Your task to perform on an android device: change the clock display to show seconds Image 0: 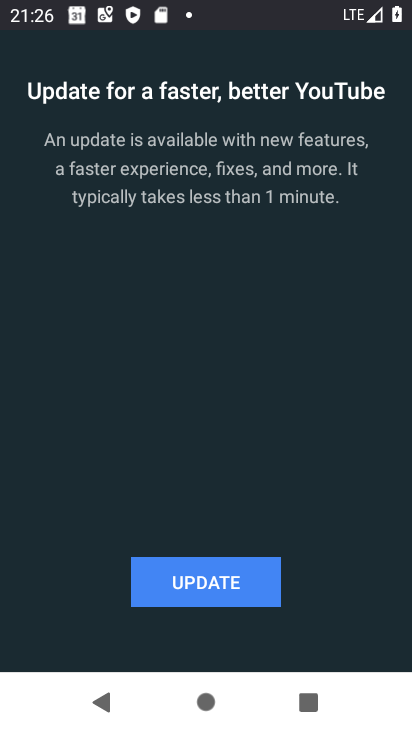
Step 0: press home button
Your task to perform on an android device: change the clock display to show seconds Image 1: 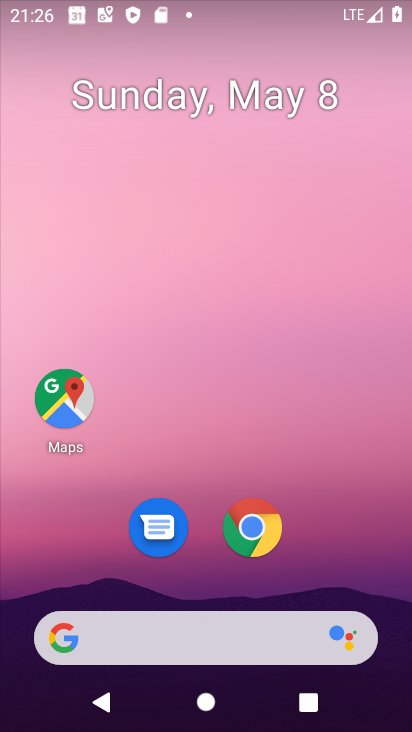
Step 1: drag from (191, 551) to (257, 97)
Your task to perform on an android device: change the clock display to show seconds Image 2: 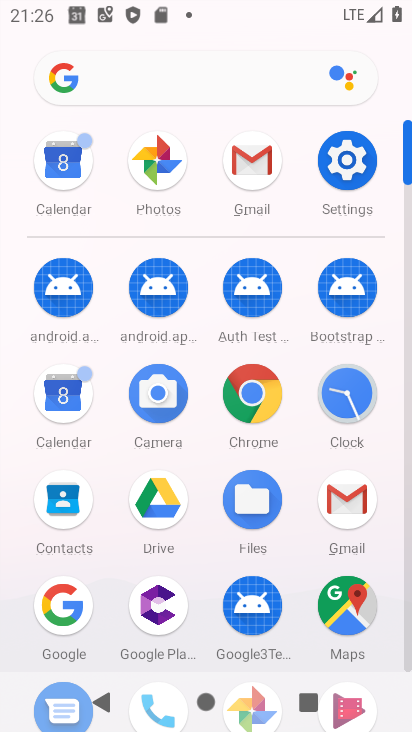
Step 2: click (348, 394)
Your task to perform on an android device: change the clock display to show seconds Image 3: 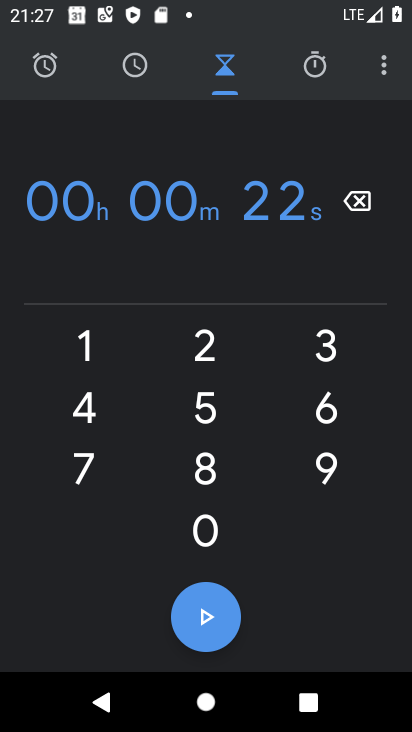
Step 3: click (365, 68)
Your task to perform on an android device: change the clock display to show seconds Image 4: 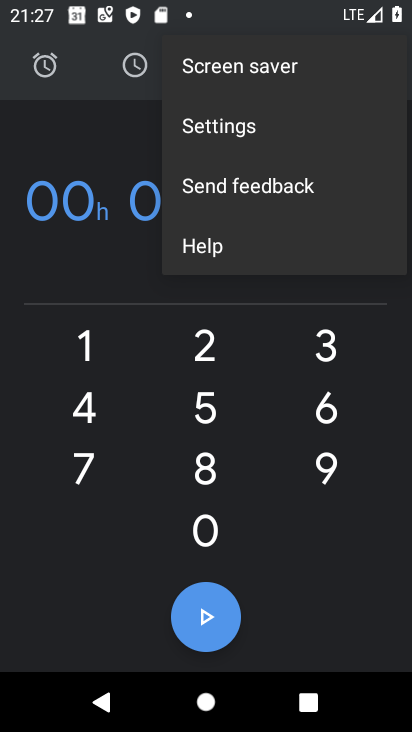
Step 4: click (245, 132)
Your task to perform on an android device: change the clock display to show seconds Image 5: 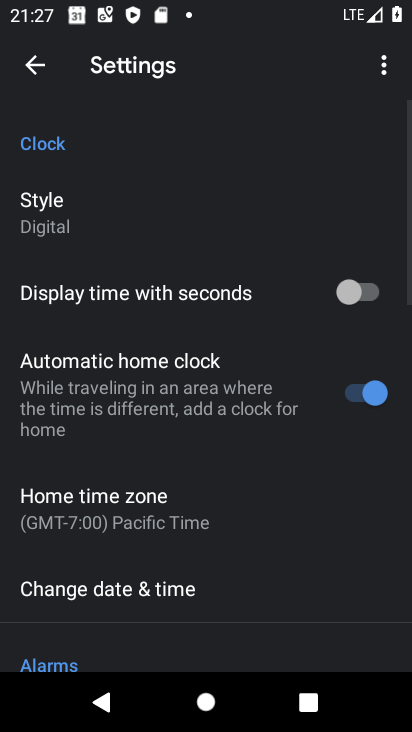
Step 5: drag from (211, 430) to (220, 249)
Your task to perform on an android device: change the clock display to show seconds Image 6: 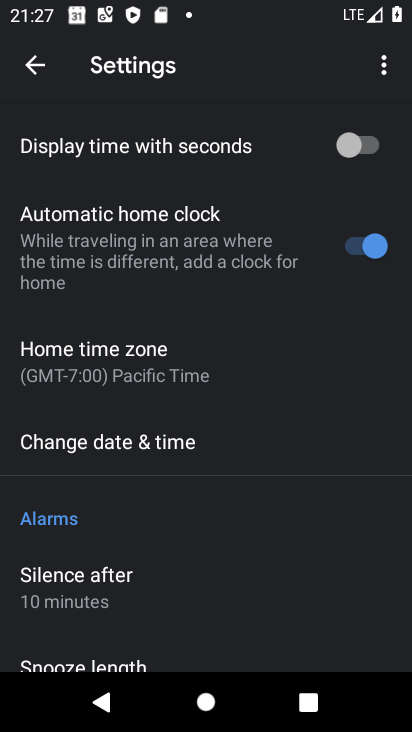
Step 6: click (343, 149)
Your task to perform on an android device: change the clock display to show seconds Image 7: 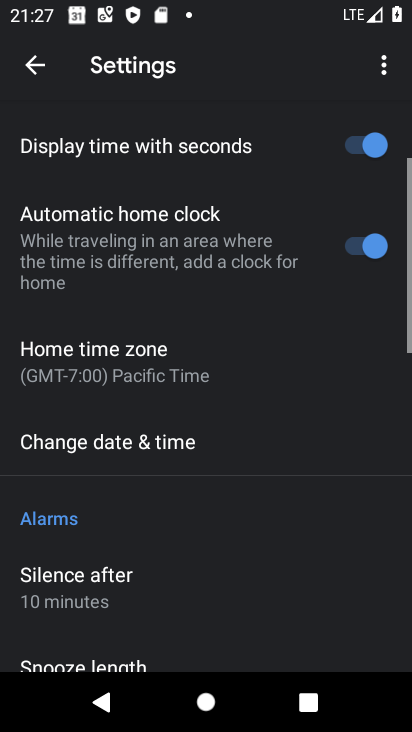
Step 7: task complete